Your task to perform on an android device: toggle show notifications on the lock screen Image 0: 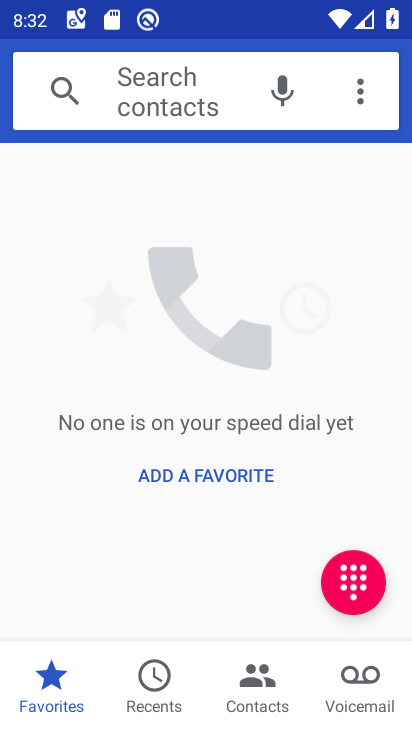
Step 0: press home button
Your task to perform on an android device: toggle show notifications on the lock screen Image 1: 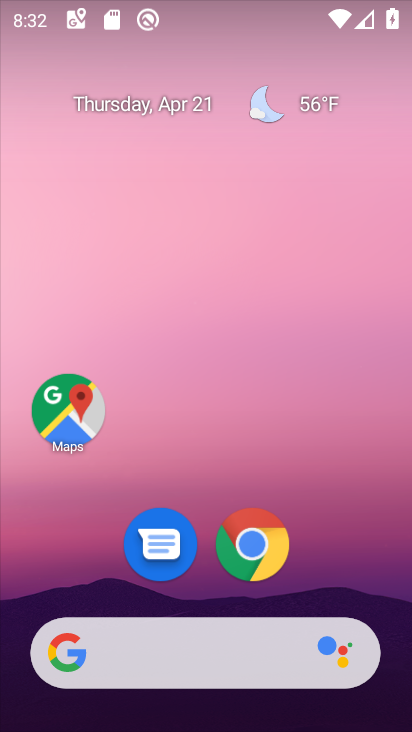
Step 1: drag from (216, 720) to (215, 171)
Your task to perform on an android device: toggle show notifications on the lock screen Image 2: 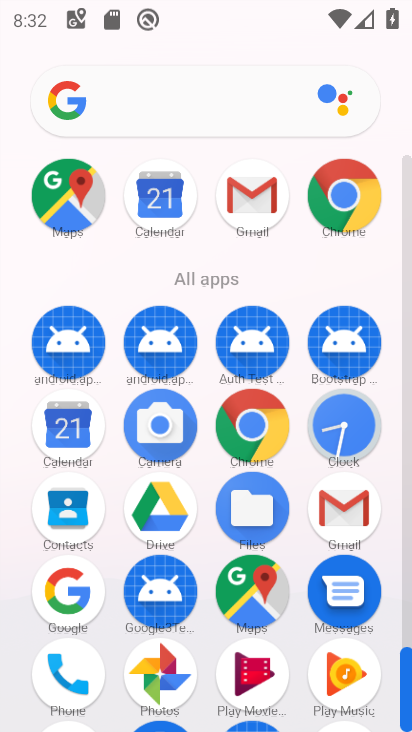
Step 2: drag from (204, 654) to (197, 239)
Your task to perform on an android device: toggle show notifications on the lock screen Image 3: 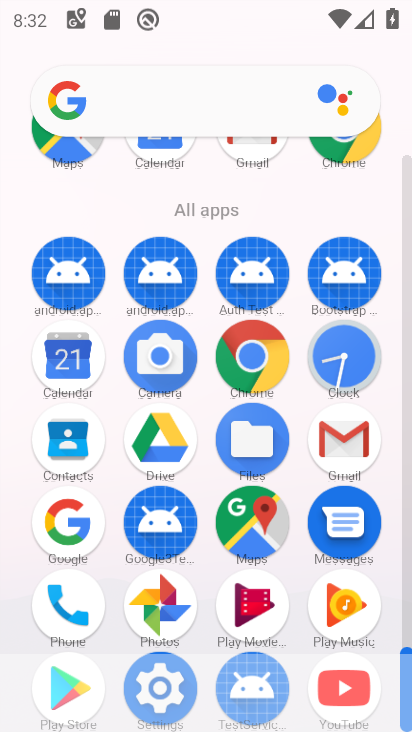
Step 3: click (157, 687)
Your task to perform on an android device: toggle show notifications on the lock screen Image 4: 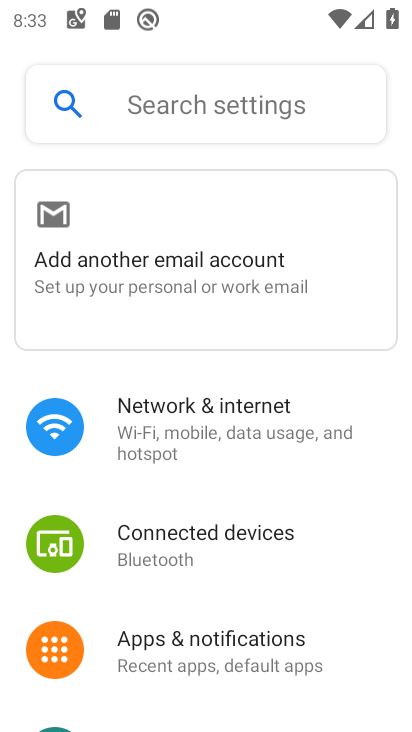
Step 4: click (188, 645)
Your task to perform on an android device: toggle show notifications on the lock screen Image 5: 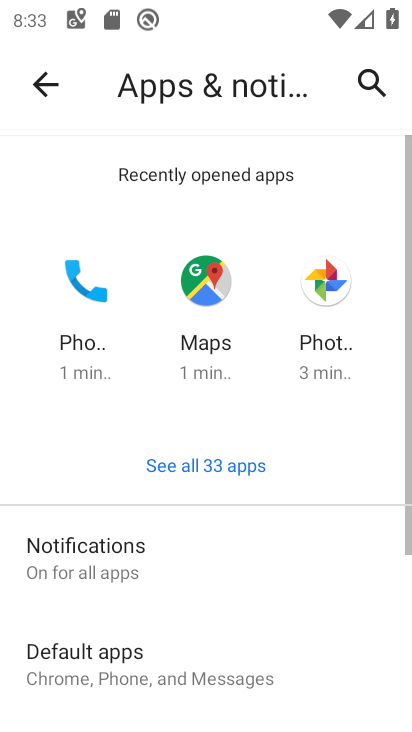
Step 5: drag from (229, 658) to (234, 457)
Your task to perform on an android device: toggle show notifications on the lock screen Image 6: 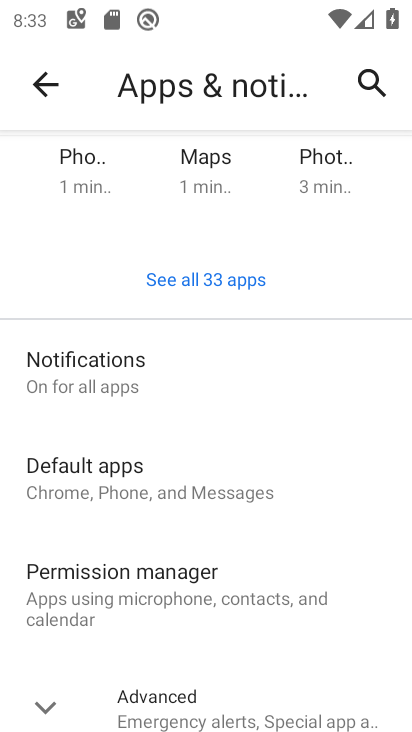
Step 6: click (75, 378)
Your task to perform on an android device: toggle show notifications on the lock screen Image 7: 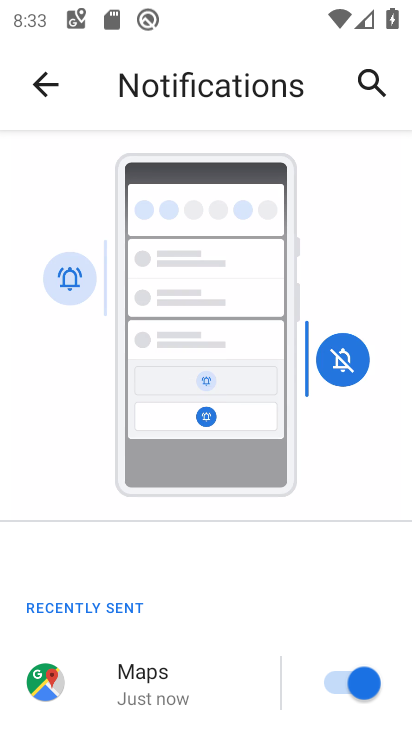
Step 7: drag from (231, 695) to (236, 300)
Your task to perform on an android device: toggle show notifications on the lock screen Image 8: 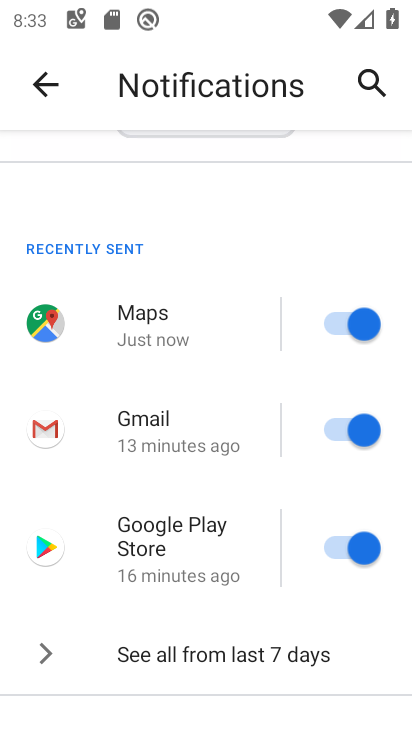
Step 8: drag from (220, 713) to (219, 393)
Your task to perform on an android device: toggle show notifications on the lock screen Image 9: 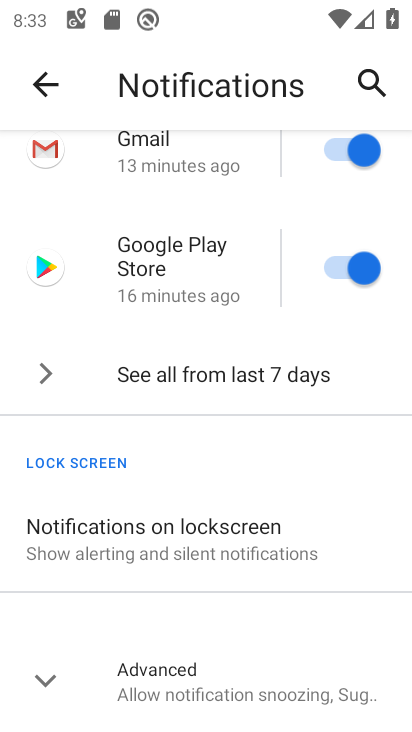
Step 9: click (225, 540)
Your task to perform on an android device: toggle show notifications on the lock screen Image 10: 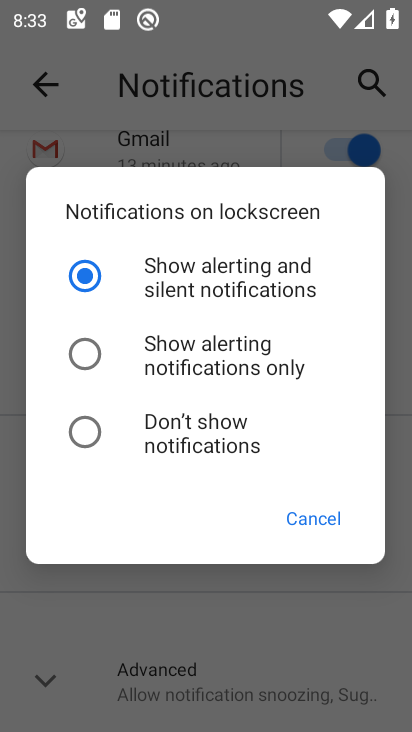
Step 10: click (79, 359)
Your task to perform on an android device: toggle show notifications on the lock screen Image 11: 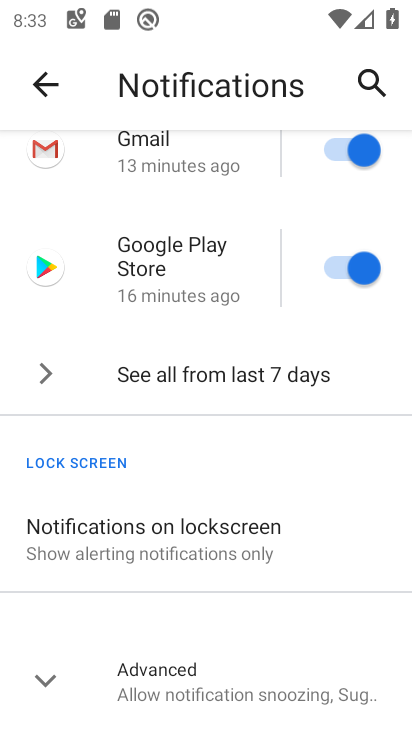
Step 11: task complete